Your task to perform on an android device: turn notification dots on Image 0: 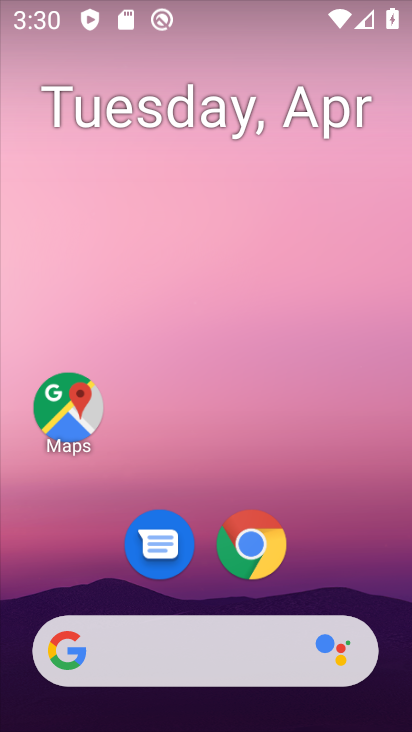
Step 0: drag from (331, 547) to (342, 324)
Your task to perform on an android device: turn notification dots on Image 1: 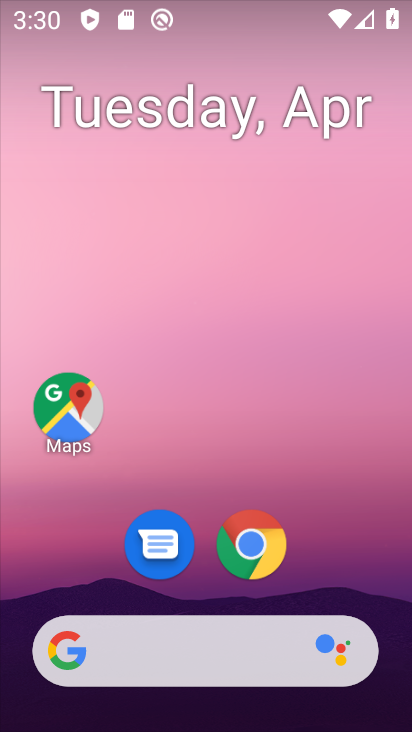
Step 1: drag from (340, 584) to (339, 204)
Your task to perform on an android device: turn notification dots on Image 2: 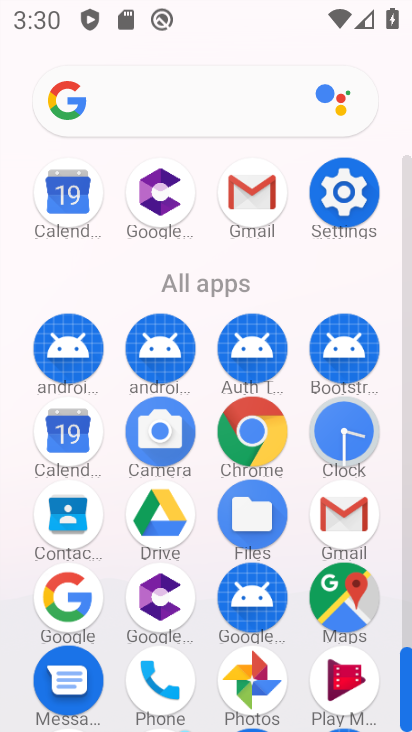
Step 2: click (361, 220)
Your task to perform on an android device: turn notification dots on Image 3: 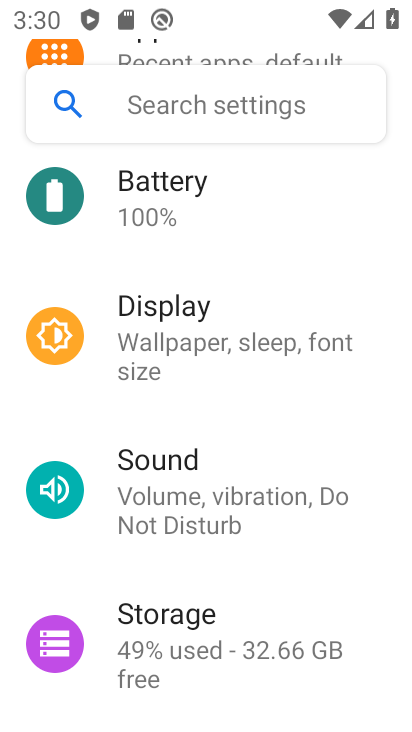
Step 3: drag from (306, 402) to (282, 620)
Your task to perform on an android device: turn notification dots on Image 4: 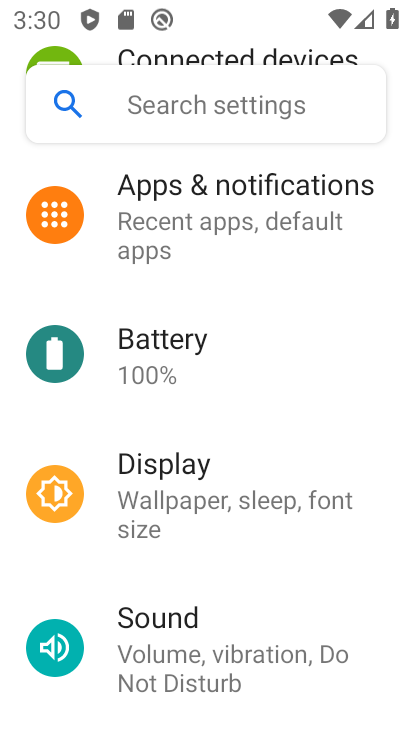
Step 4: drag from (292, 278) to (268, 438)
Your task to perform on an android device: turn notification dots on Image 5: 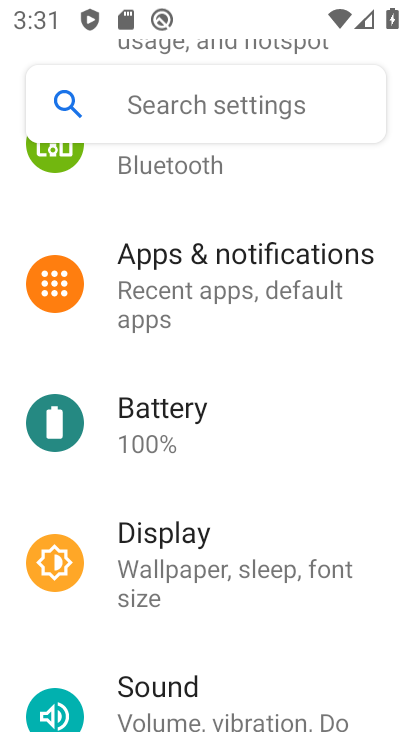
Step 5: click (261, 293)
Your task to perform on an android device: turn notification dots on Image 6: 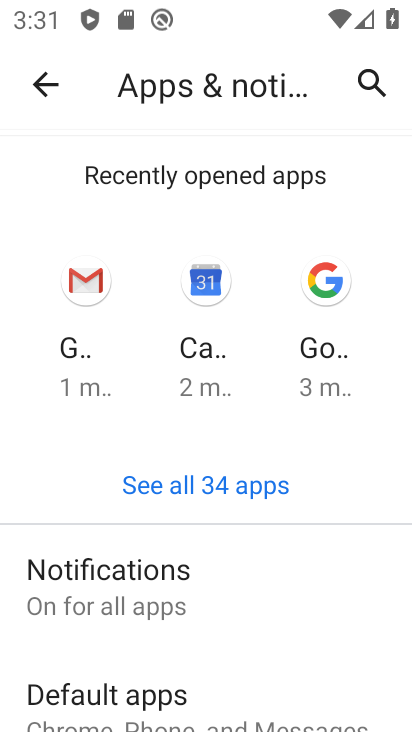
Step 6: click (170, 607)
Your task to perform on an android device: turn notification dots on Image 7: 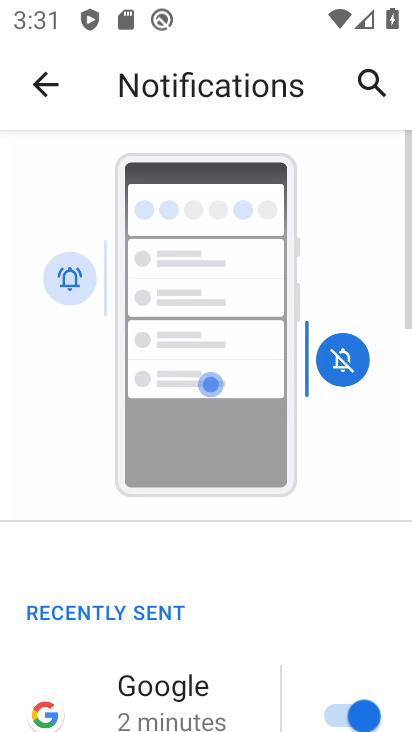
Step 7: drag from (251, 590) to (315, 278)
Your task to perform on an android device: turn notification dots on Image 8: 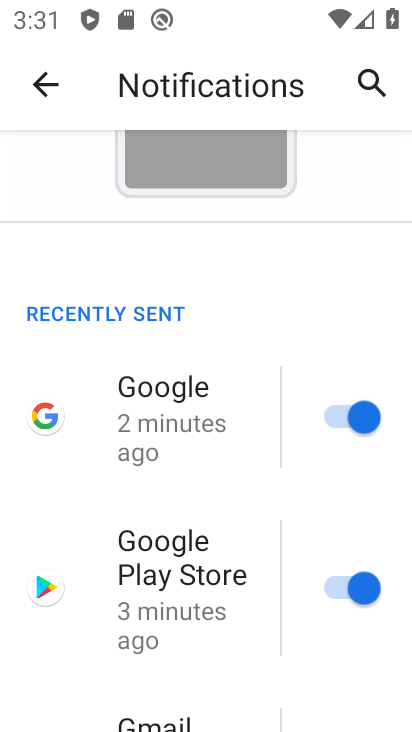
Step 8: drag from (209, 671) to (270, 222)
Your task to perform on an android device: turn notification dots on Image 9: 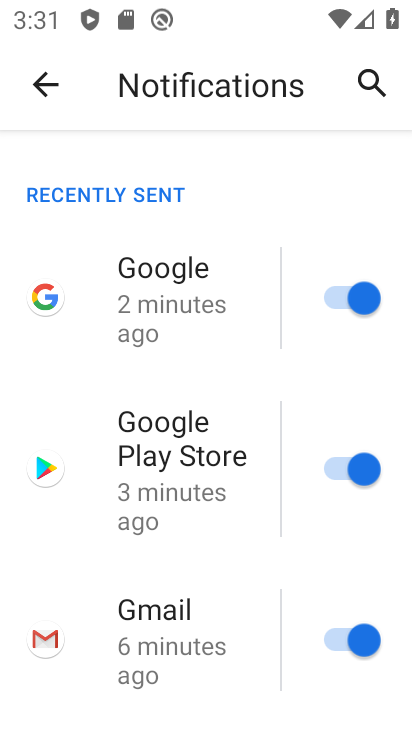
Step 9: drag from (178, 683) to (223, 244)
Your task to perform on an android device: turn notification dots on Image 10: 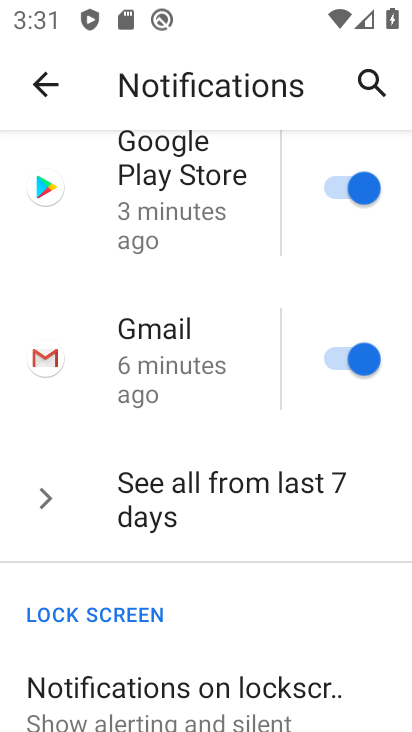
Step 10: drag from (159, 691) to (207, 251)
Your task to perform on an android device: turn notification dots on Image 11: 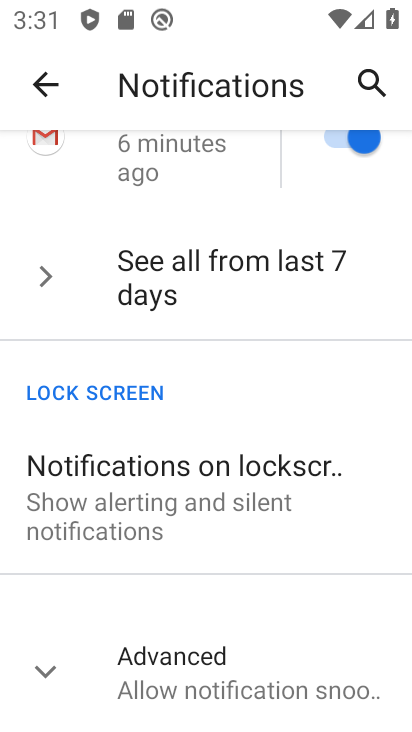
Step 11: click (39, 686)
Your task to perform on an android device: turn notification dots on Image 12: 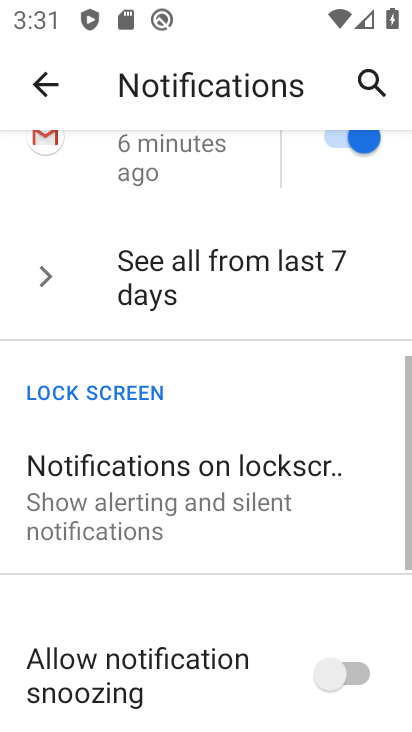
Step 12: task complete